Your task to perform on an android device: check battery use Image 0: 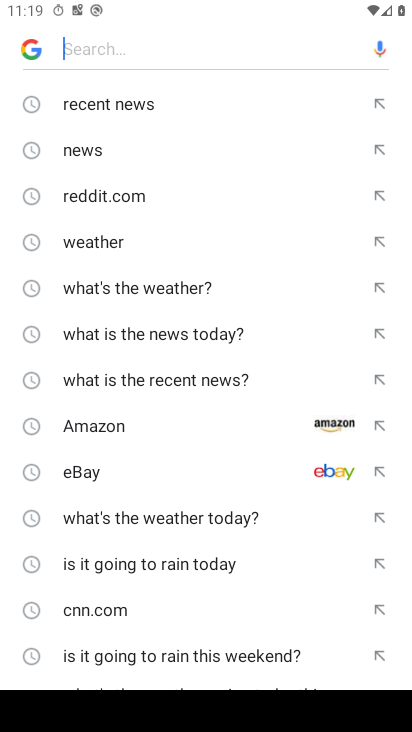
Step 0: press home button
Your task to perform on an android device: check battery use Image 1: 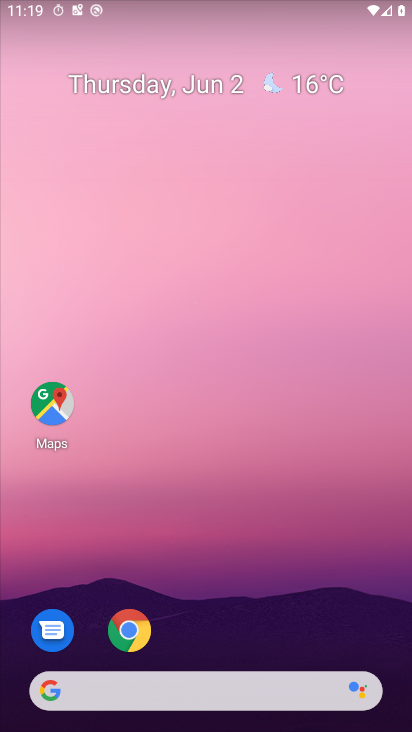
Step 1: drag from (213, 656) to (223, 254)
Your task to perform on an android device: check battery use Image 2: 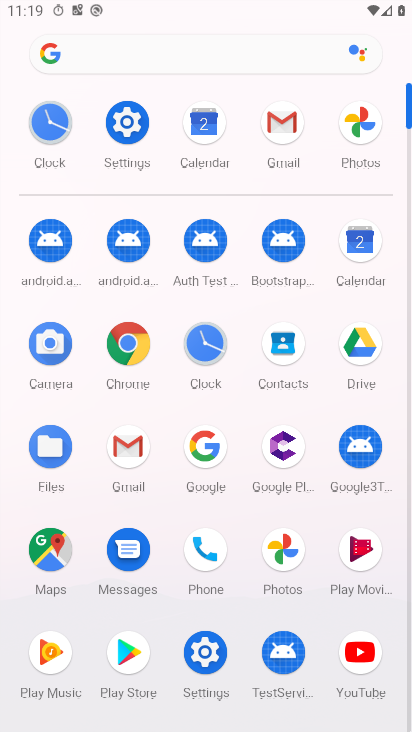
Step 2: click (119, 135)
Your task to perform on an android device: check battery use Image 3: 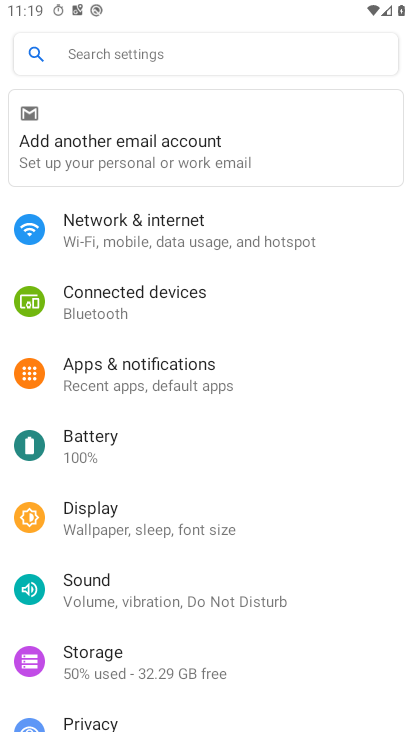
Step 3: click (131, 460)
Your task to perform on an android device: check battery use Image 4: 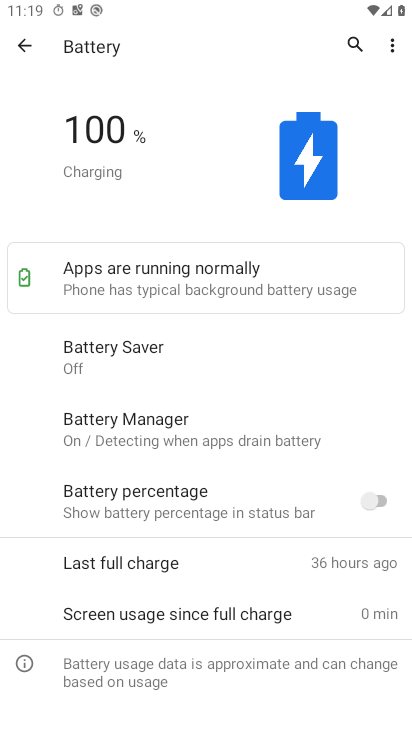
Step 4: click (395, 43)
Your task to perform on an android device: check battery use Image 5: 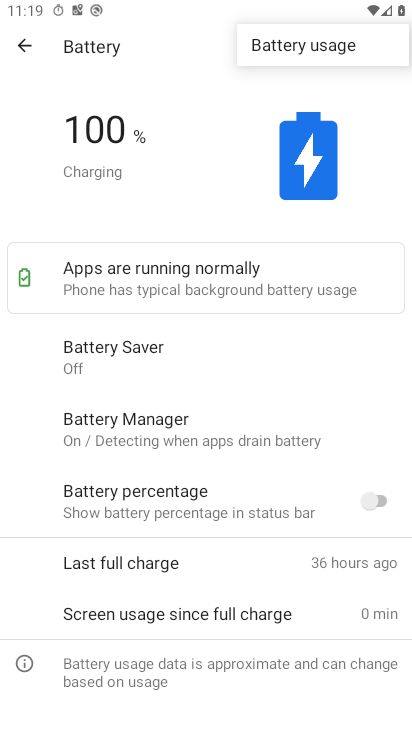
Step 5: click (273, 52)
Your task to perform on an android device: check battery use Image 6: 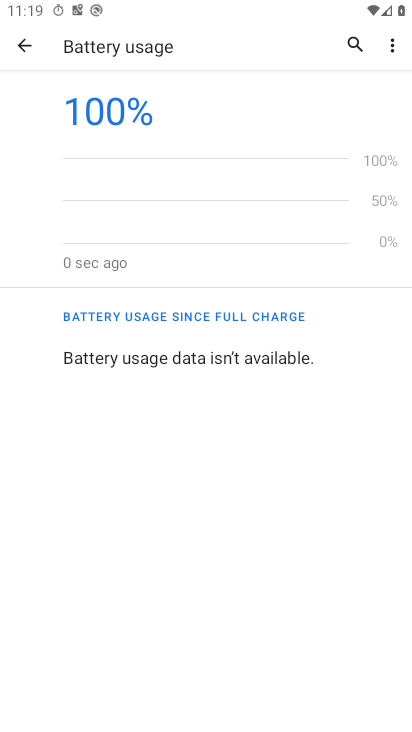
Step 6: task complete